Your task to perform on an android device: change the upload size in google photos Image 0: 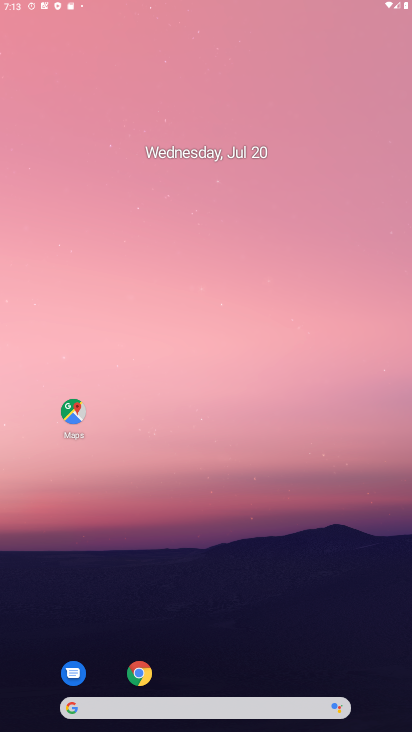
Step 0: drag from (364, 668) to (142, 6)
Your task to perform on an android device: change the upload size in google photos Image 1: 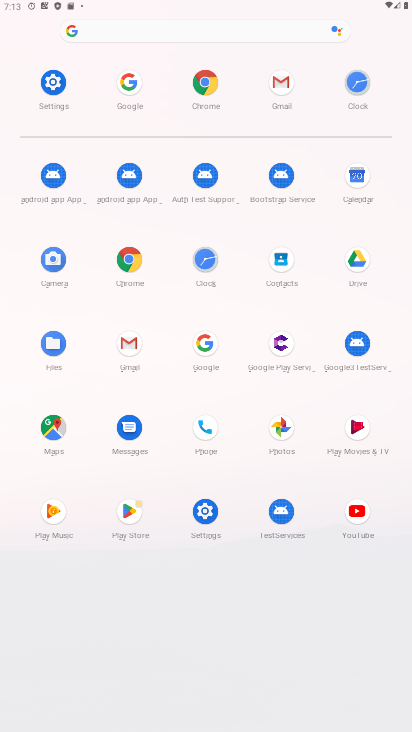
Step 1: click (282, 422)
Your task to perform on an android device: change the upload size in google photos Image 2: 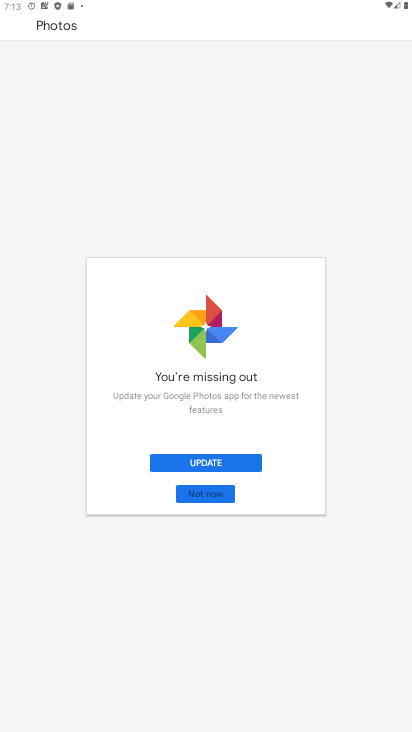
Step 2: click (207, 460)
Your task to perform on an android device: change the upload size in google photos Image 3: 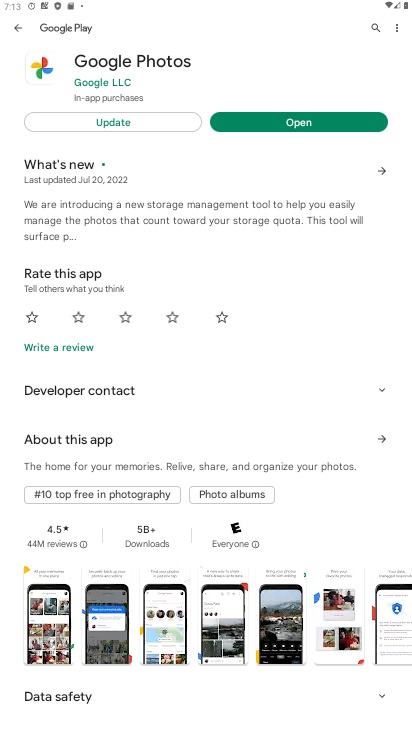
Step 3: click (128, 126)
Your task to perform on an android device: change the upload size in google photos Image 4: 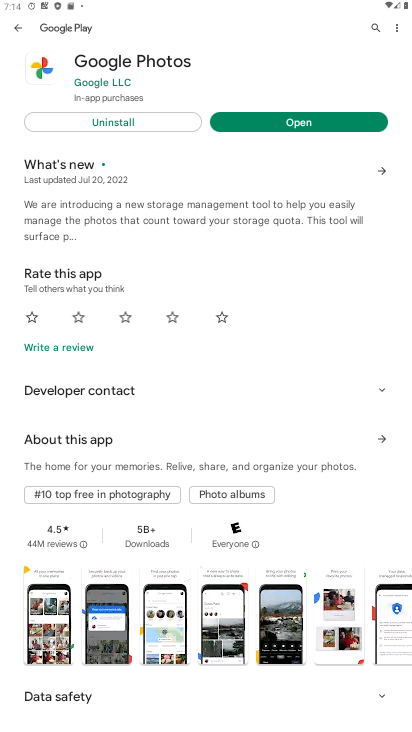
Step 4: click (313, 126)
Your task to perform on an android device: change the upload size in google photos Image 5: 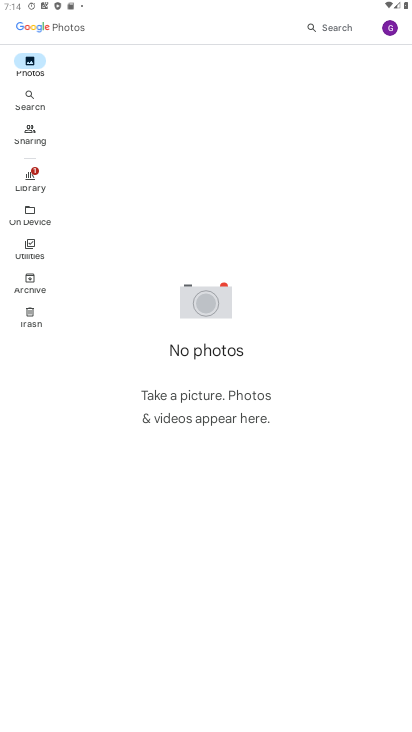
Step 5: click (384, 26)
Your task to perform on an android device: change the upload size in google photos Image 6: 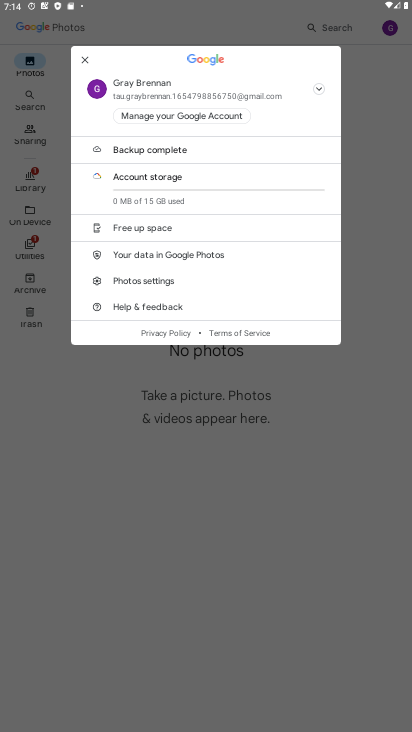
Step 6: click (142, 279)
Your task to perform on an android device: change the upload size in google photos Image 7: 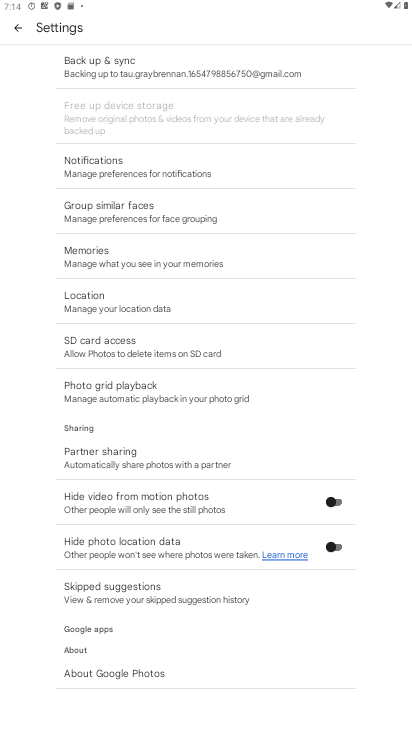
Step 7: click (163, 84)
Your task to perform on an android device: change the upload size in google photos Image 8: 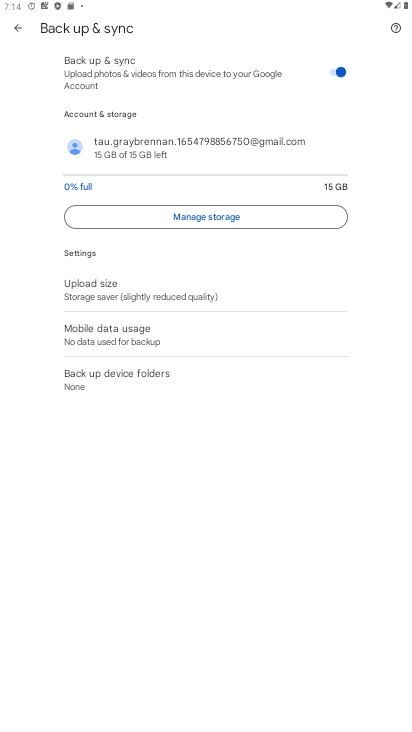
Step 8: click (114, 291)
Your task to perform on an android device: change the upload size in google photos Image 9: 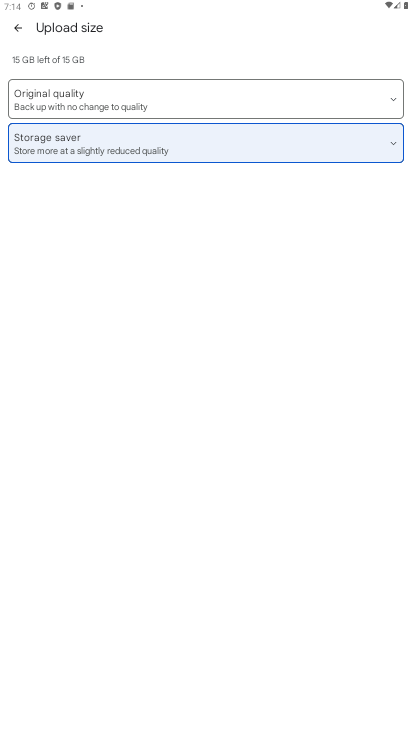
Step 9: click (105, 91)
Your task to perform on an android device: change the upload size in google photos Image 10: 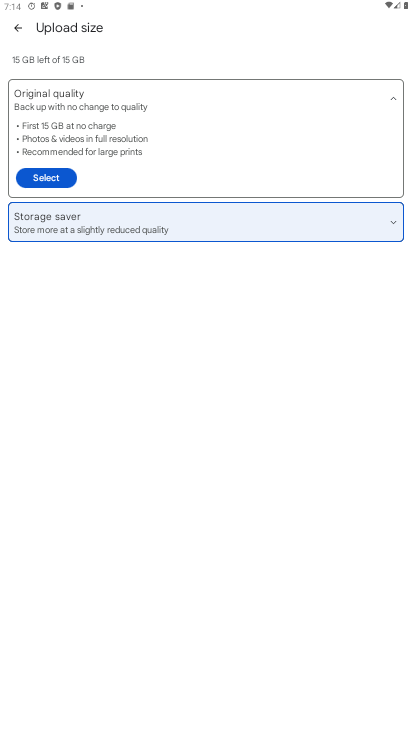
Step 10: click (36, 173)
Your task to perform on an android device: change the upload size in google photos Image 11: 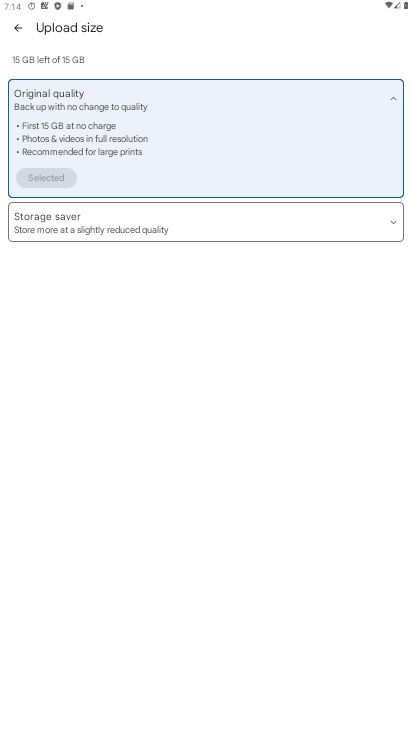
Step 11: task complete